Your task to perform on an android device: Find coffee shops on Maps Image 0: 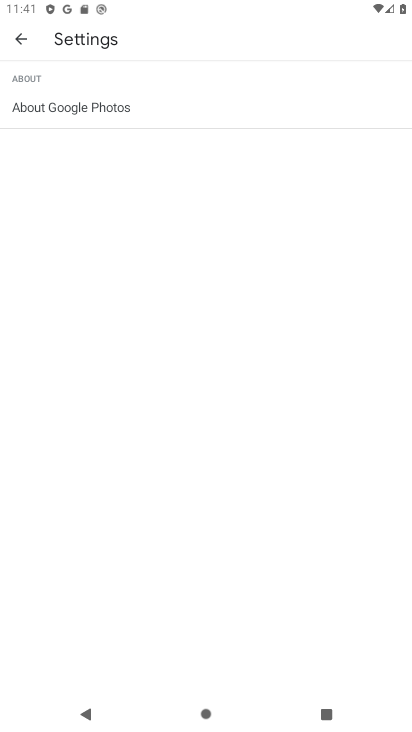
Step 0: press home button
Your task to perform on an android device: Find coffee shops on Maps Image 1: 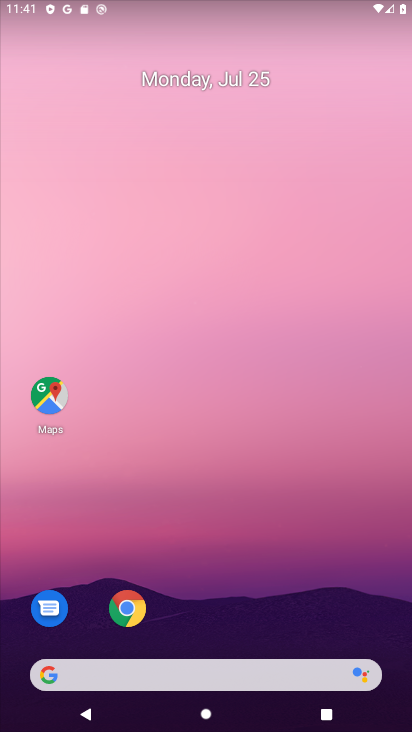
Step 1: drag from (207, 658) to (251, 291)
Your task to perform on an android device: Find coffee shops on Maps Image 2: 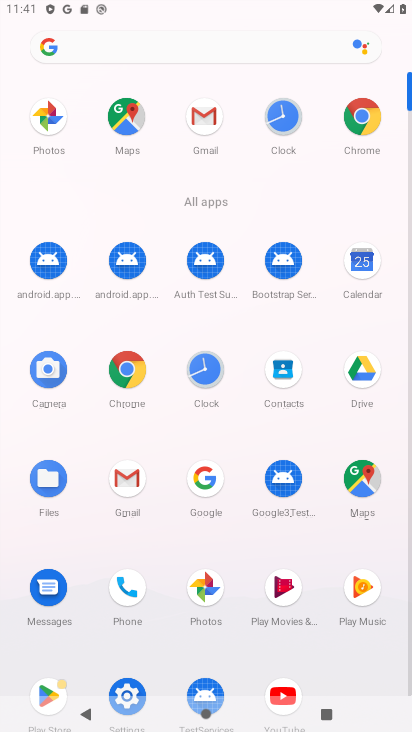
Step 2: click (368, 474)
Your task to perform on an android device: Find coffee shops on Maps Image 3: 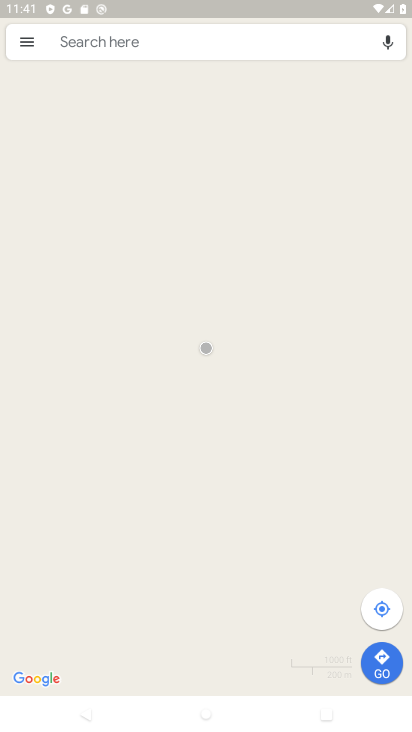
Step 3: click (139, 49)
Your task to perform on an android device: Find coffee shops on Maps Image 4: 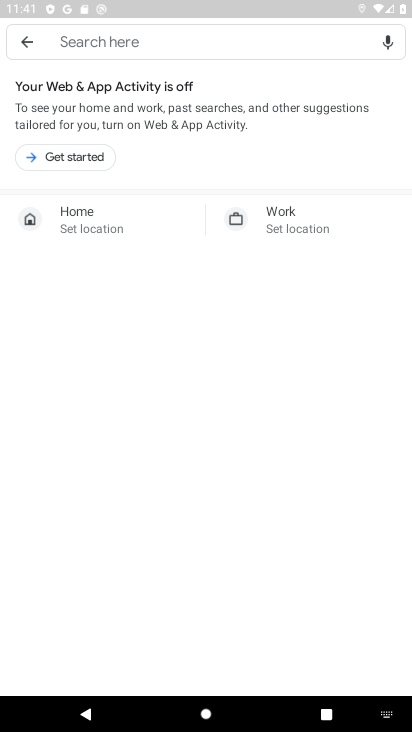
Step 4: click (95, 46)
Your task to perform on an android device: Find coffee shops on Maps Image 5: 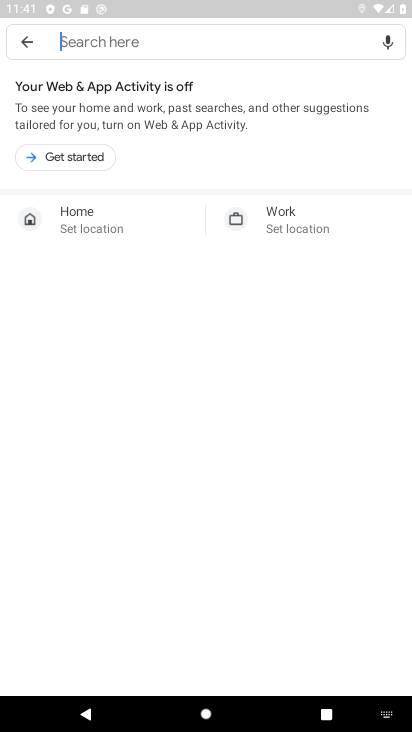
Step 5: click (73, 39)
Your task to perform on an android device: Find coffee shops on Maps Image 6: 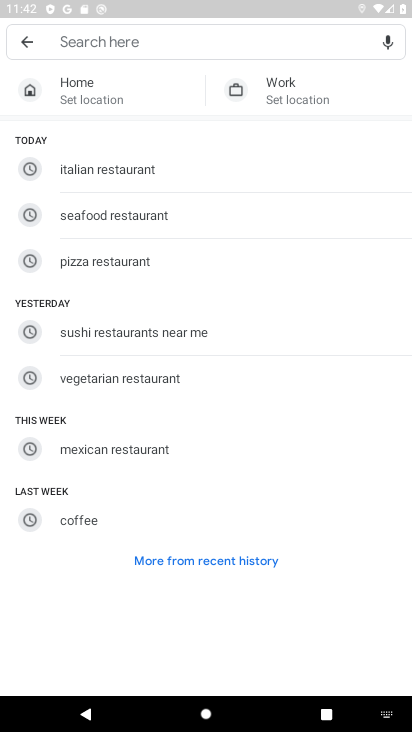
Step 6: click (101, 517)
Your task to perform on an android device: Find coffee shops on Maps Image 7: 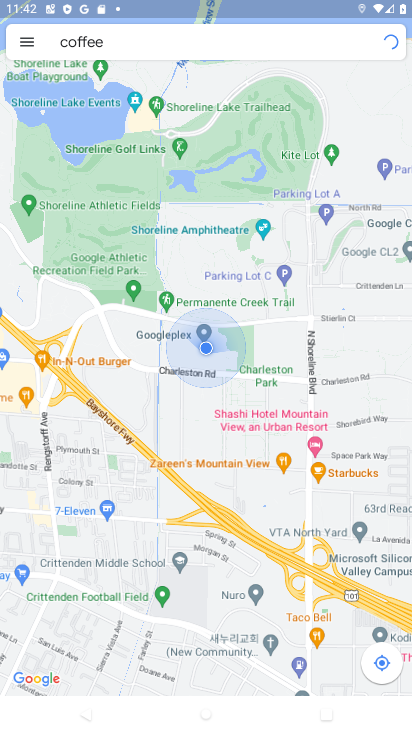
Step 7: task complete